Your task to perform on an android device: Go to eBay Image 0: 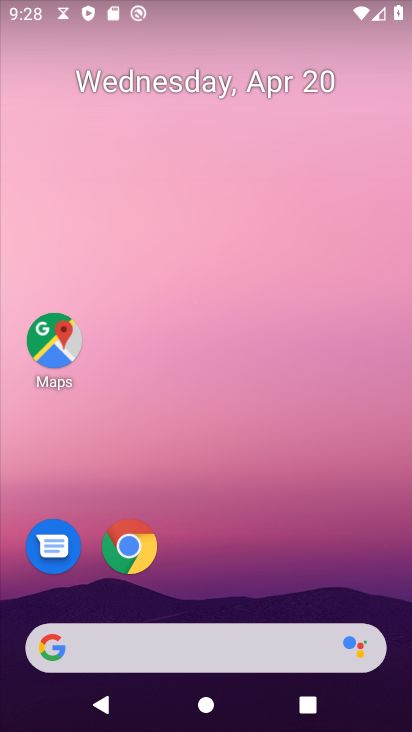
Step 0: click (125, 547)
Your task to perform on an android device: Go to eBay Image 1: 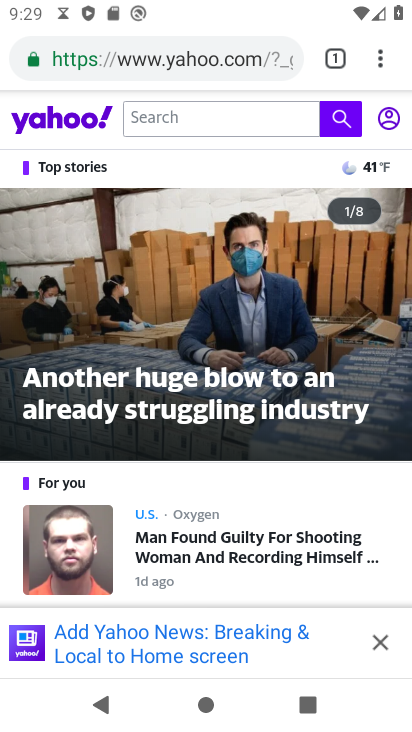
Step 1: click (332, 56)
Your task to perform on an android device: Go to eBay Image 2: 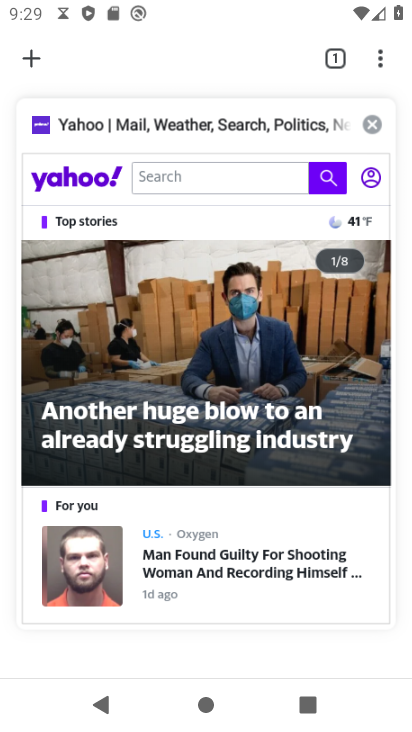
Step 2: click (32, 56)
Your task to perform on an android device: Go to eBay Image 3: 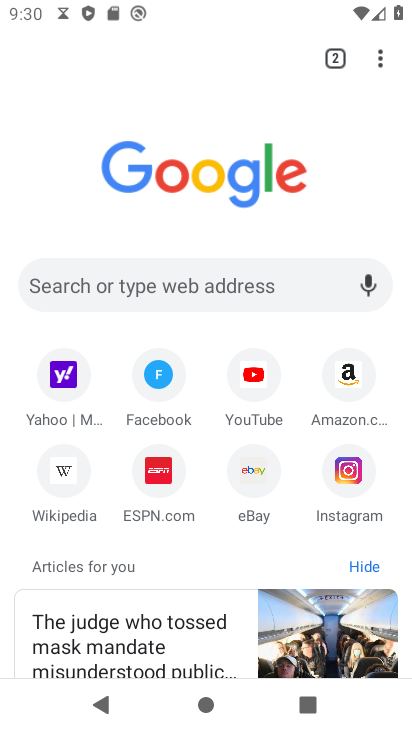
Step 3: click (254, 468)
Your task to perform on an android device: Go to eBay Image 4: 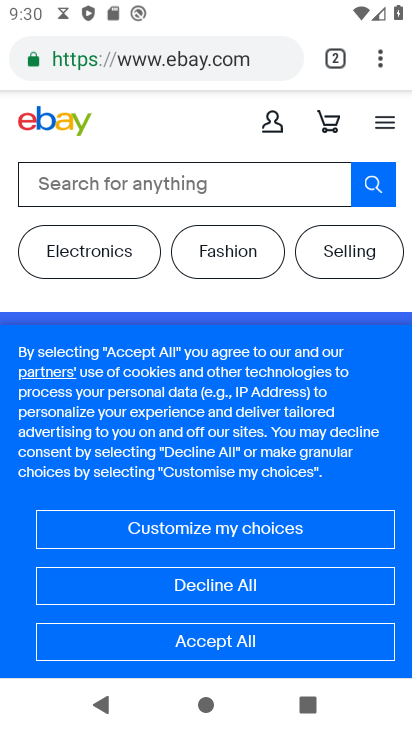
Step 4: task complete